Your task to perform on an android device: check storage Image 0: 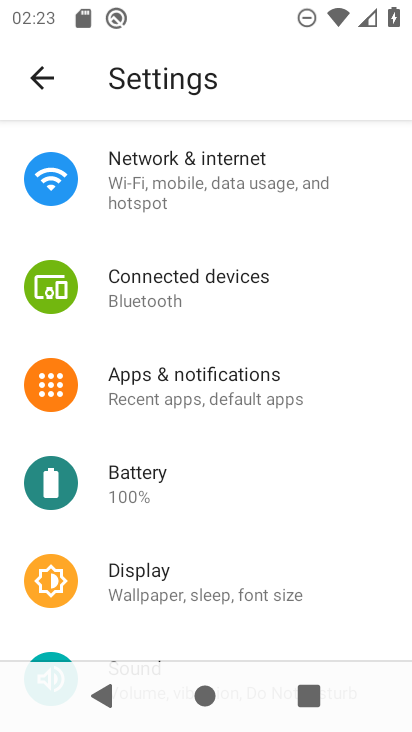
Step 0: drag from (178, 544) to (167, 266)
Your task to perform on an android device: check storage Image 1: 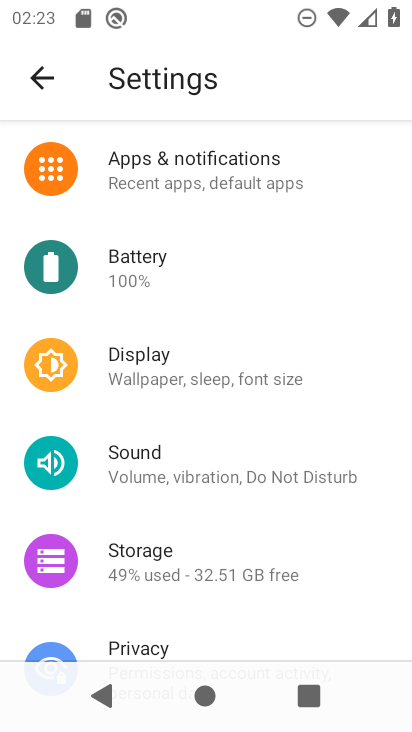
Step 1: click (182, 566)
Your task to perform on an android device: check storage Image 2: 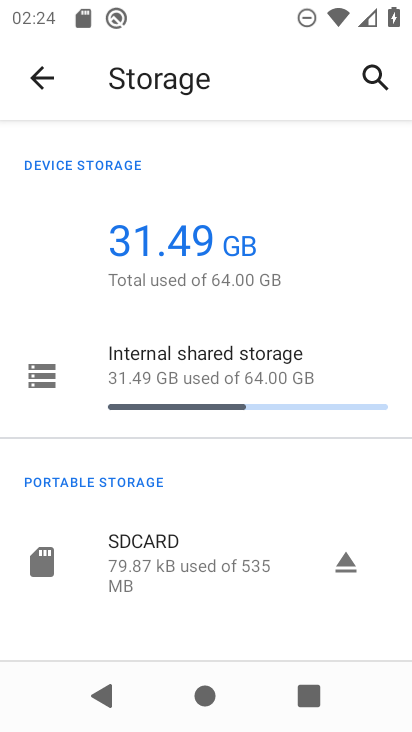
Step 2: task complete